Your task to perform on an android device: turn pop-ups on in chrome Image 0: 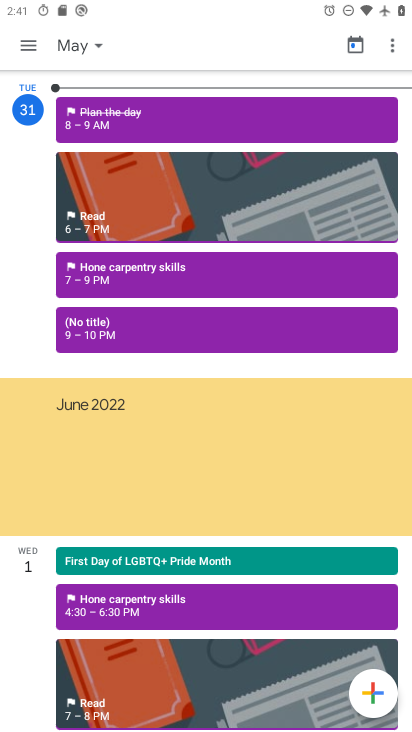
Step 0: press home button
Your task to perform on an android device: turn pop-ups on in chrome Image 1: 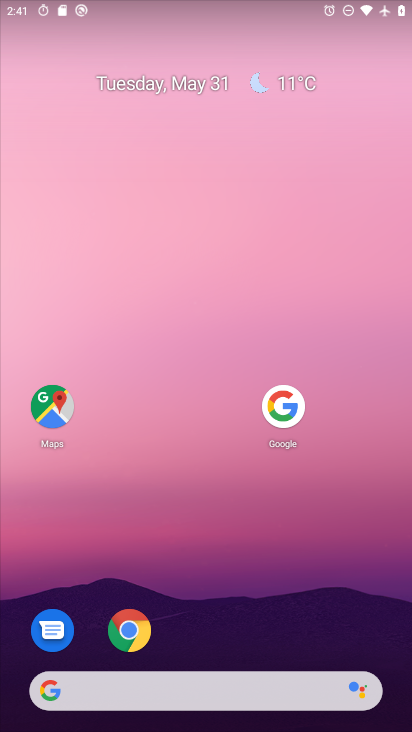
Step 1: click (121, 625)
Your task to perform on an android device: turn pop-ups on in chrome Image 2: 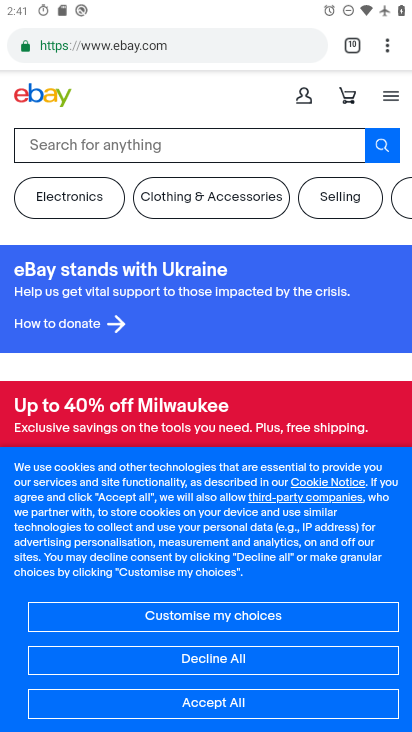
Step 2: drag from (388, 42) to (245, 599)
Your task to perform on an android device: turn pop-ups on in chrome Image 3: 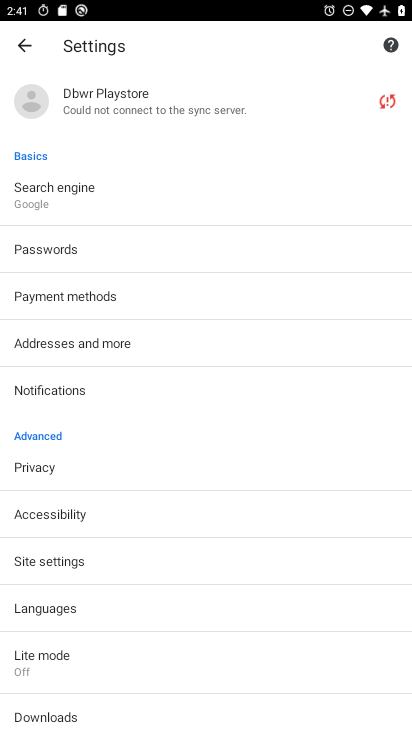
Step 3: click (70, 562)
Your task to perform on an android device: turn pop-ups on in chrome Image 4: 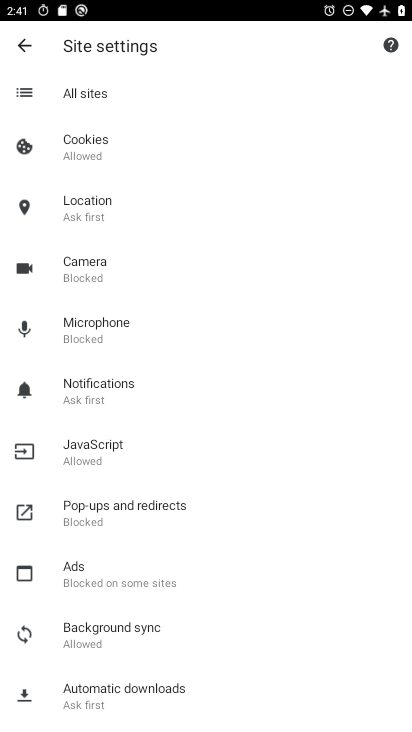
Step 4: click (110, 508)
Your task to perform on an android device: turn pop-ups on in chrome Image 5: 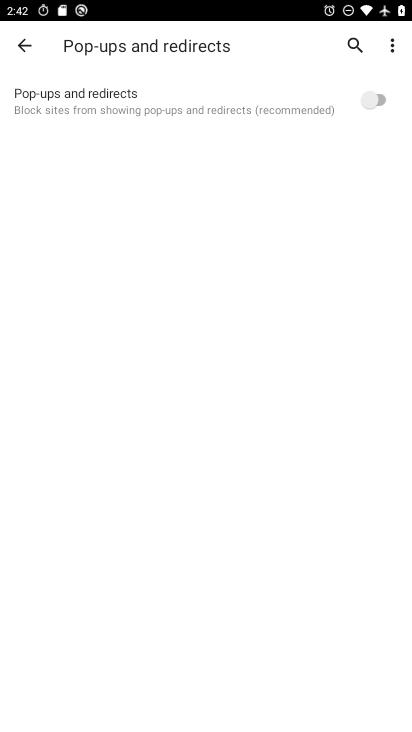
Step 5: click (379, 96)
Your task to perform on an android device: turn pop-ups on in chrome Image 6: 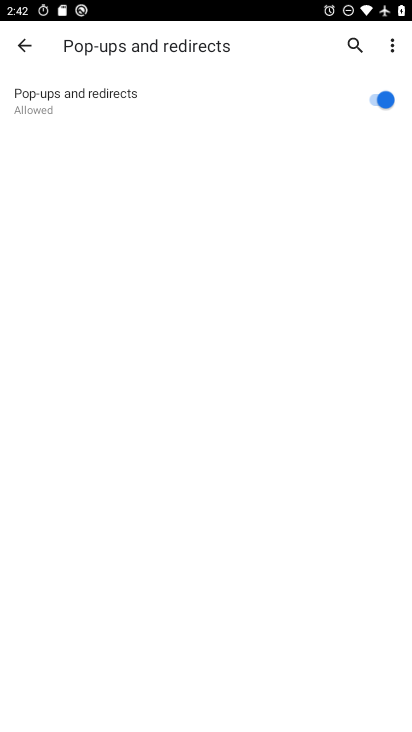
Step 6: task complete